Your task to perform on an android device: Check the weather Image 0: 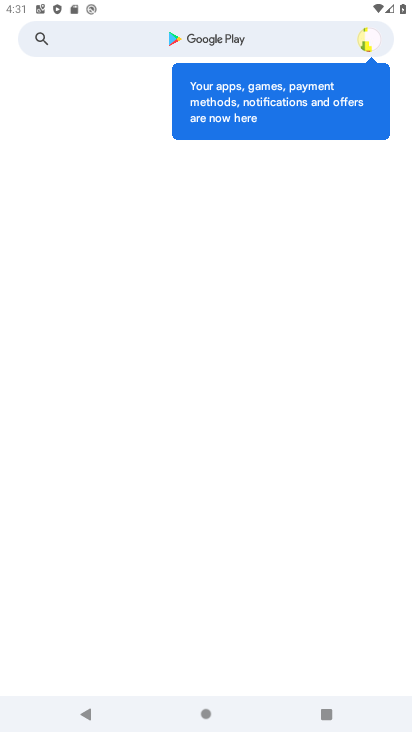
Step 0: press home button
Your task to perform on an android device: Check the weather Image 1: 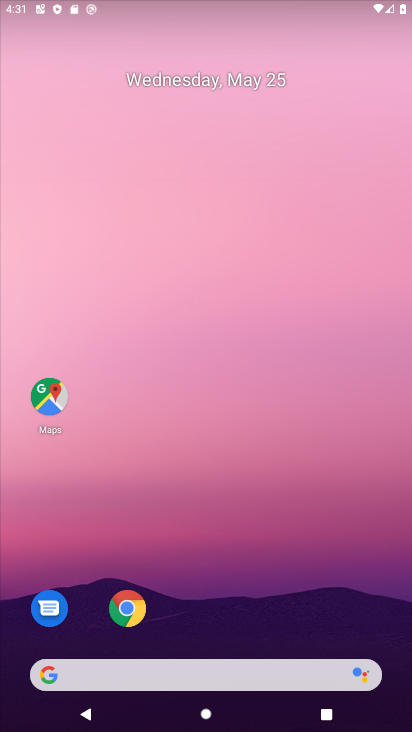
Step 1: click (228, 670)
Your task to perform on an android device: Check the weather Image 2: 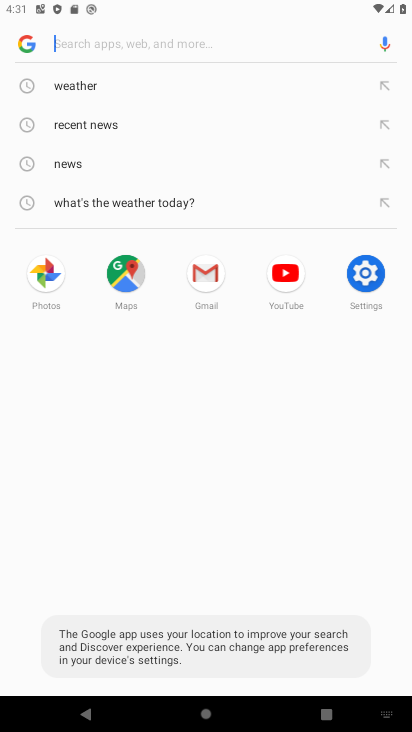
Step 2: click (184, 76)
Your task to perform on an android device: Check the weather Image 3: 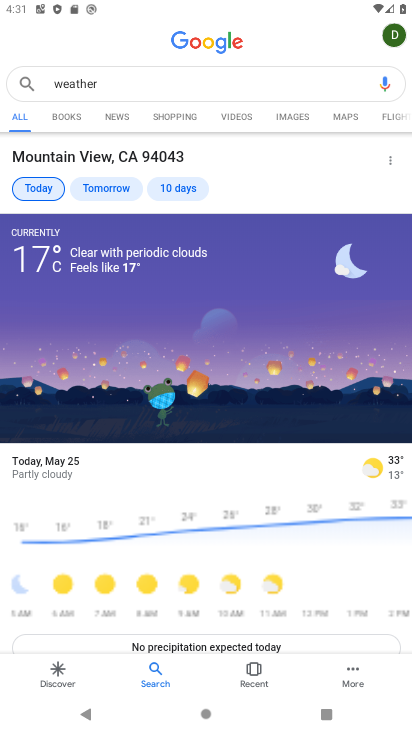
Step 3: task complete